Your task to perform on an android device: What's the weather going to be this weekend? Image 0: 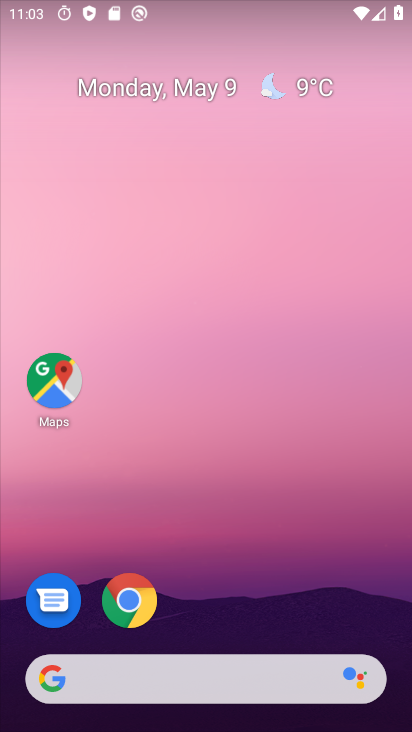
Step 0: click (310, 94)
Your task to perform on an android device: What's the weather going to be this weekend? Image 1: 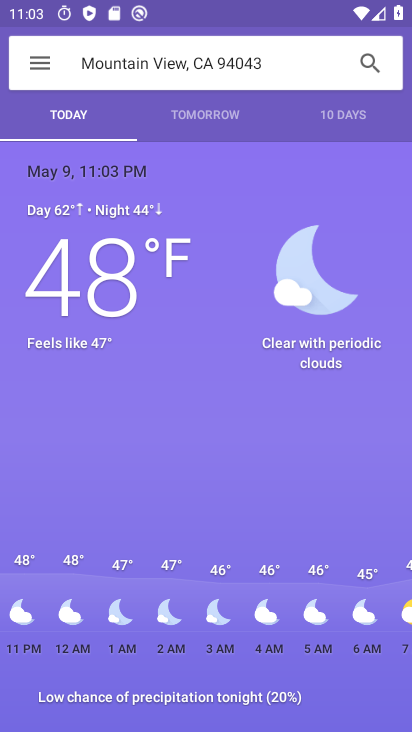
Step 1: click (328, 125)
Your task to perform on an android device: What's the weather going to be this weekend? Image 2: 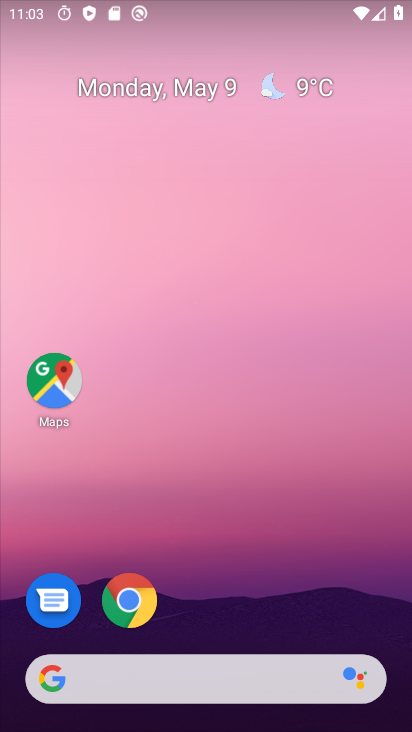
Step 2: click (324, 89)
Your task to perform on an android device: What's the weather going to be this weekend? Image 3: 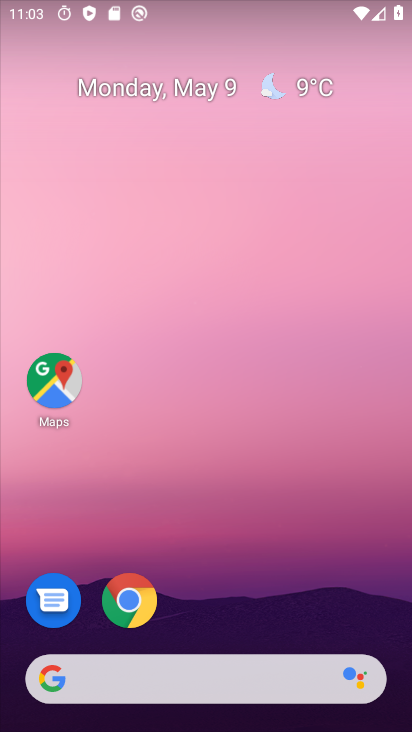
Step 3: click (249, 83)
Your task to perform on an android device: What's the weather going to be this weekend? Image 4: 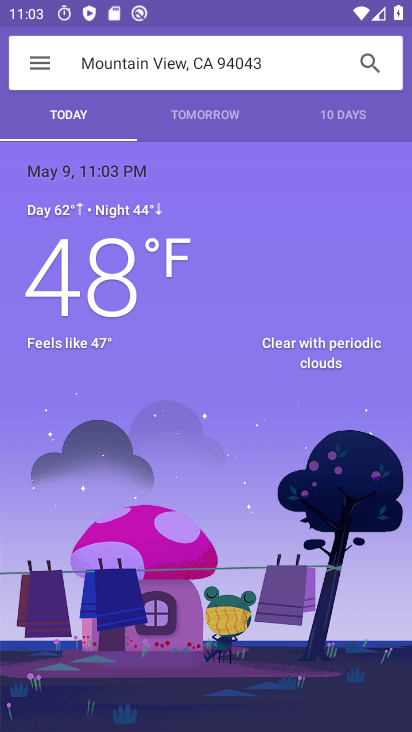
Step 4: click (349, 120)
Your task to perform on an android device: What's the weather going to be this weekend? Image 5: 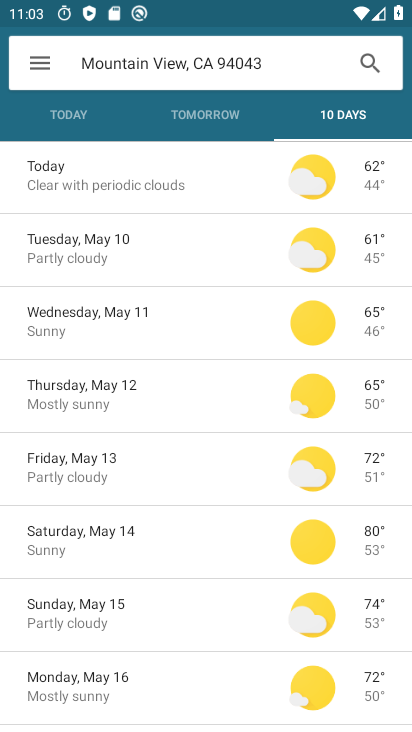
Step 5: task complete